Your task to perform on an android device: Open Maps and search for coffee Image 0: 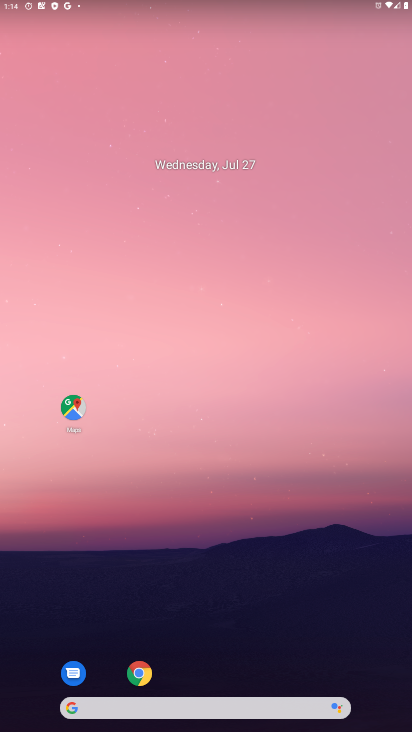
Step 0: click (73, 412)
Your task to perform on an android device: Open Maps and search for coffee Image 1: 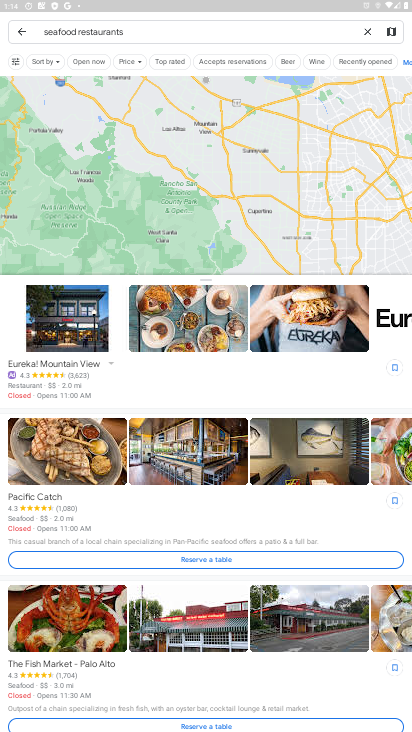
Step 1: click (365, 31)
Your task to perform on an android device: Open Maps and search for coffee Image 2: 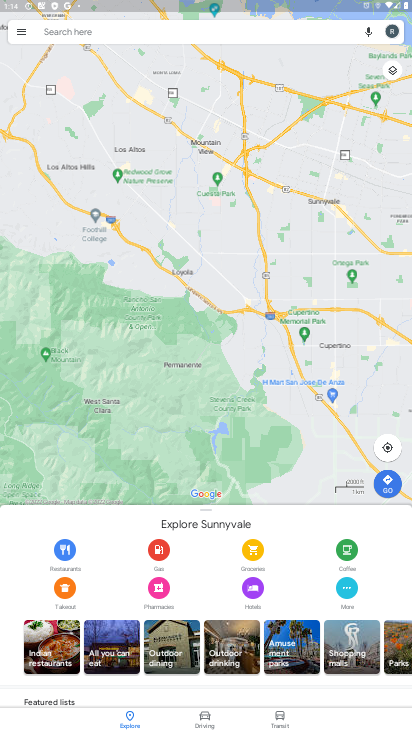
Step 2: click (81, 29)
Your task to perform on an android device: Open Maps and search for coffee Image 3: 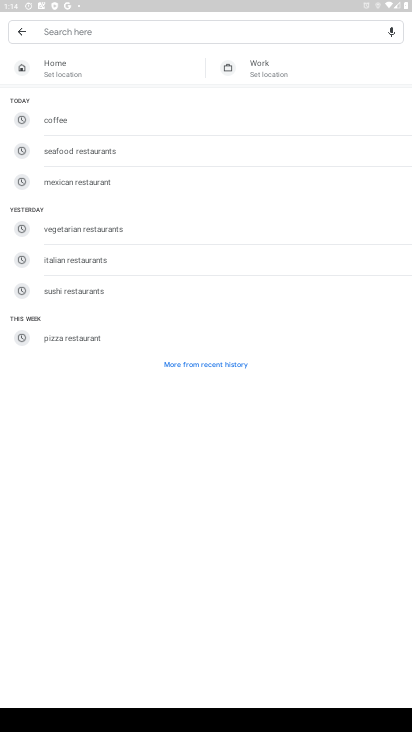
Step 3: click (44, 121)
Your task to perform on an android device: Open Maps and search for coffee Image 4: 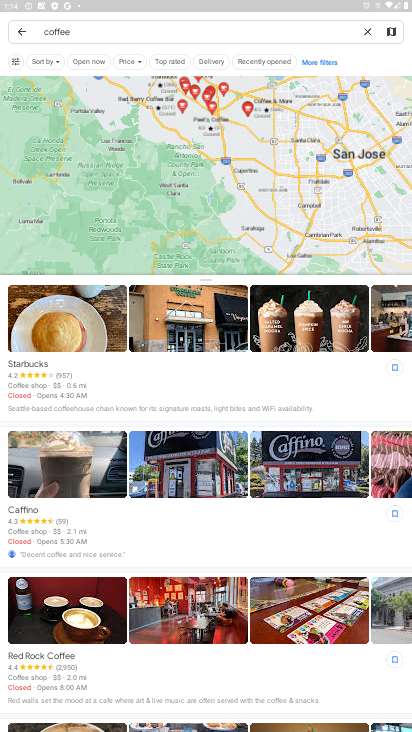
Step 4: task complete